Your task to perform on an android device: install app "PlayWell" Image 0: 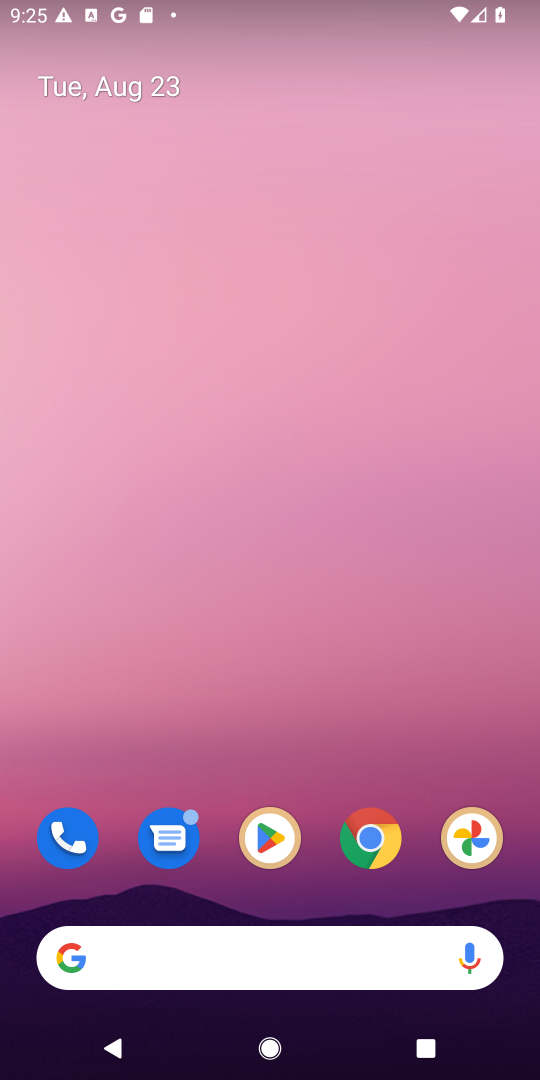
Step 0: click (283, 835)
Your task to perform on an android device: install app "PlayWell" Image 1: 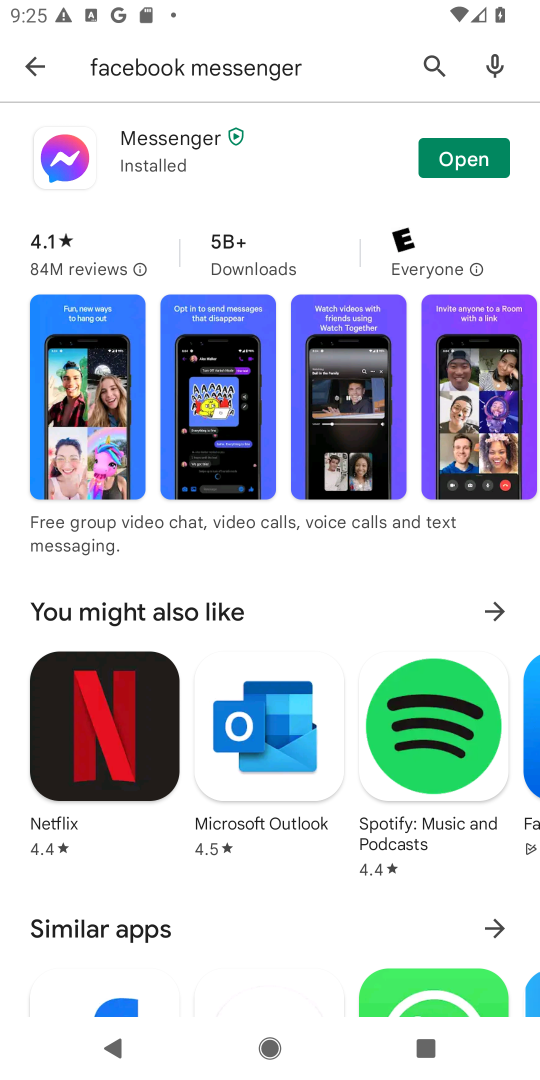
Step 1: click (423, 58)
Your task to perform on an android device: install app "PlayWell" Image 2: 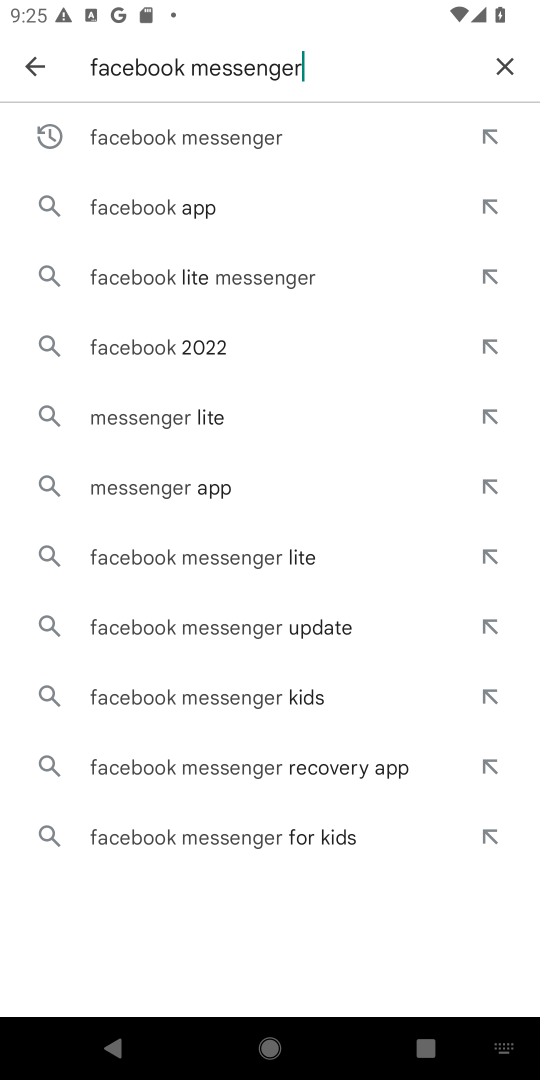
Step 2: click (503, 58)
Your task to perform on an android device: install app "PlayWell" Image 3: 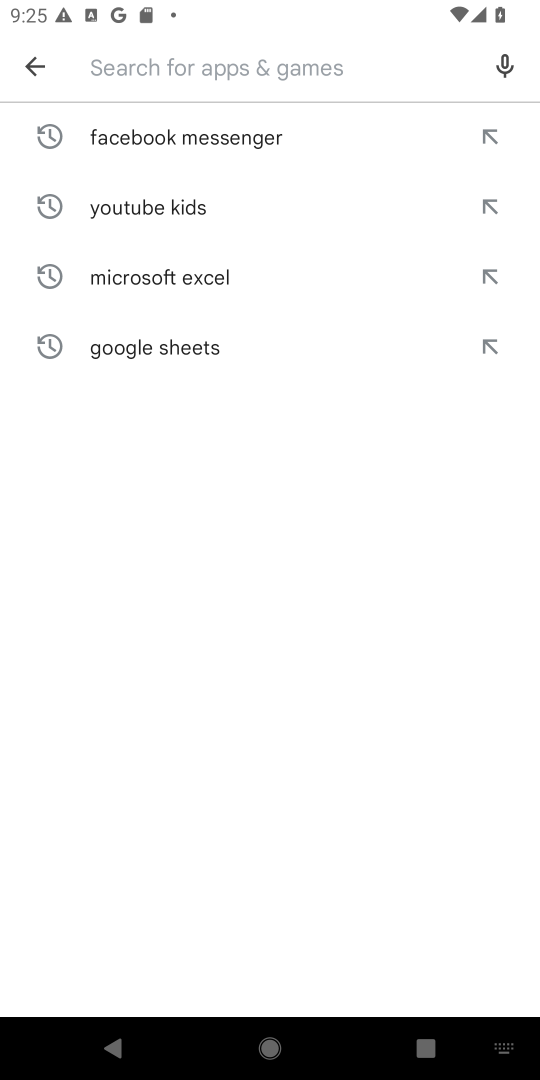
Step 3: type "PlayWell"
Your task to perform on an android device: install app "PlayWell" Image 4: 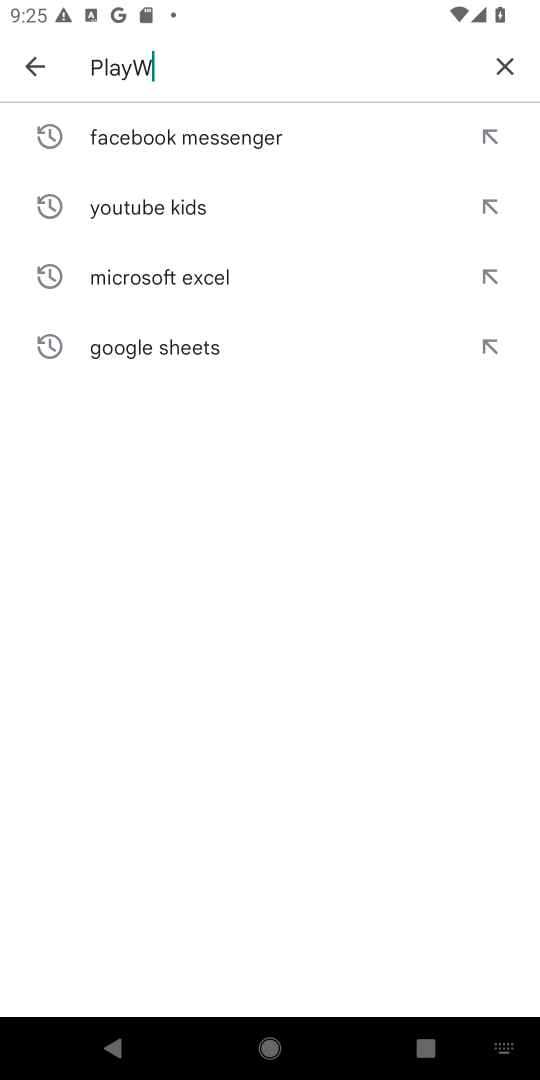
Step 4: type ""
Your task to perform on an android device: install app "PlayWell" Image 5: 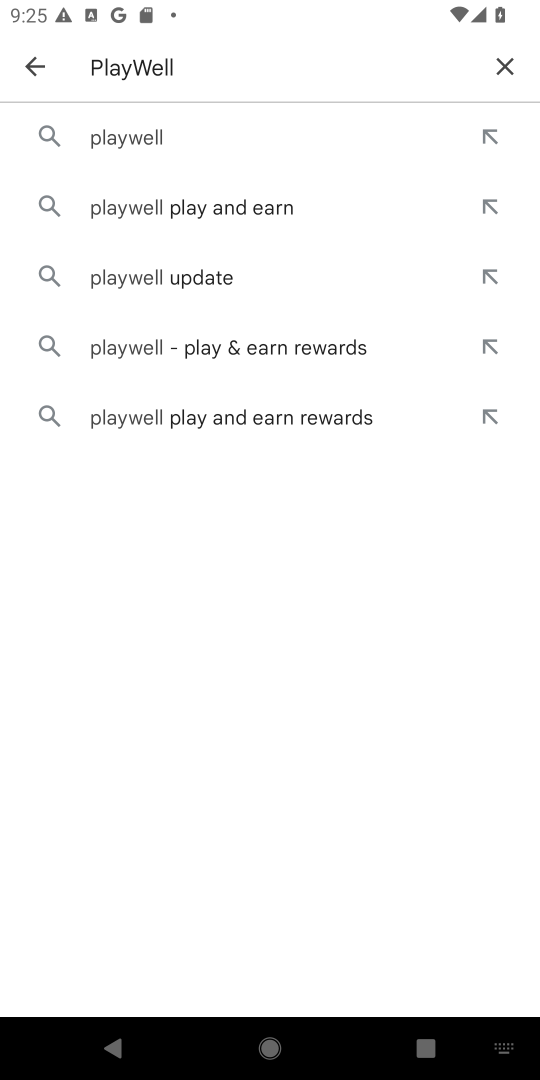
Step 5: click (120, 140)
Your task to perform on an android device: install app "PlayWell" Image 6: 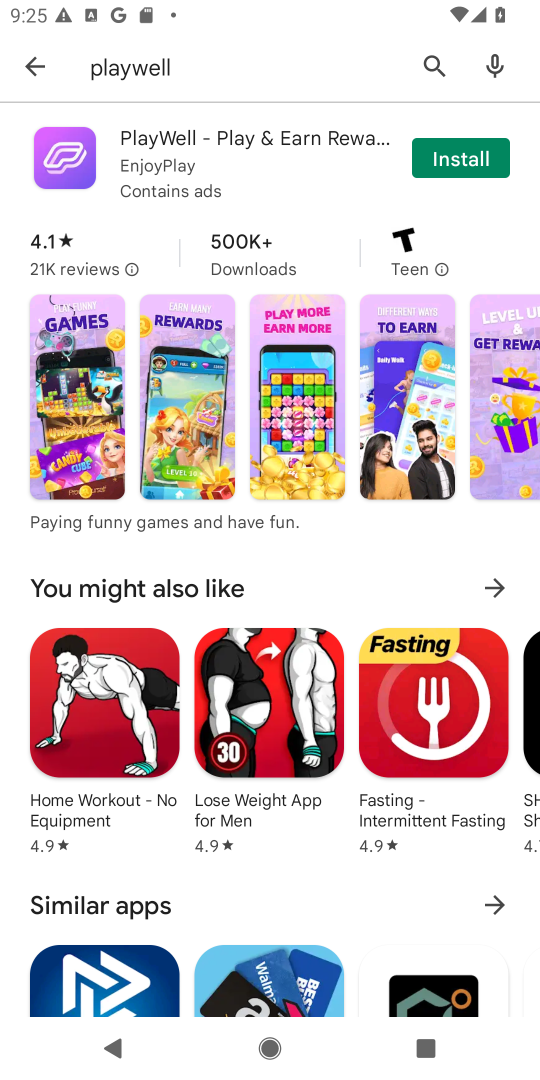
Step 6: click (452, 149)
Your task to perform on an android device: install app "PlayWell" Image 7: 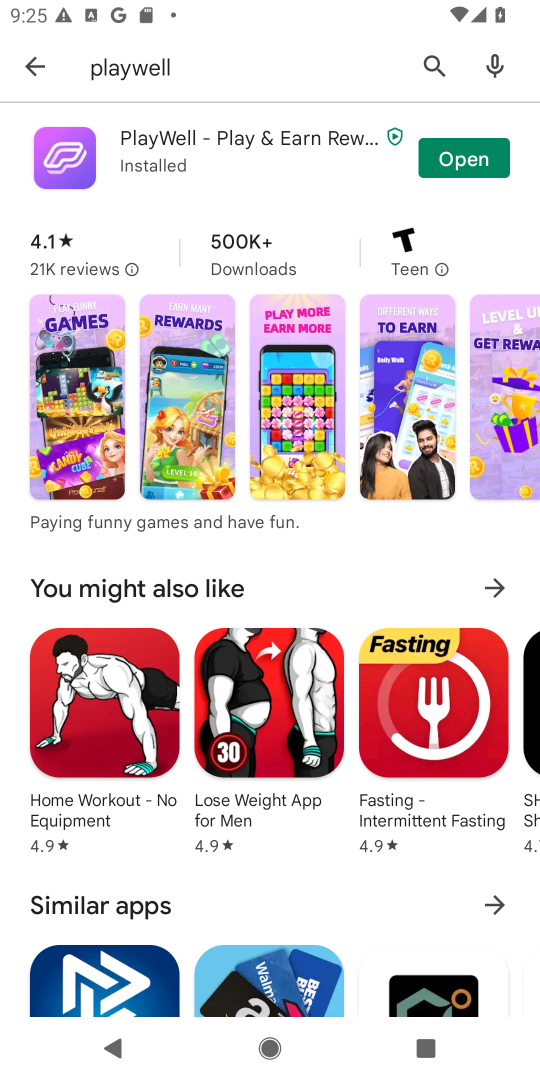
Step 7: task complete